Your task to perform on an android device: Open Google Chrome and click the shortcut for Amazon.com Image 0: 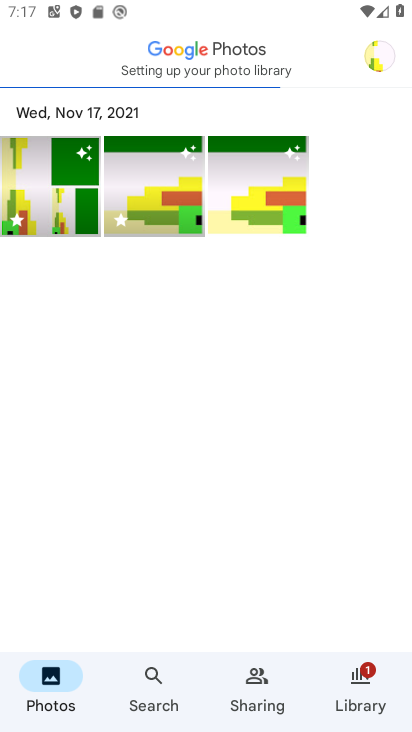
Step 0: press home button
Your task to perform on an android device: Open Google Chrome and click the shortcut for Amazon.com Image 1: 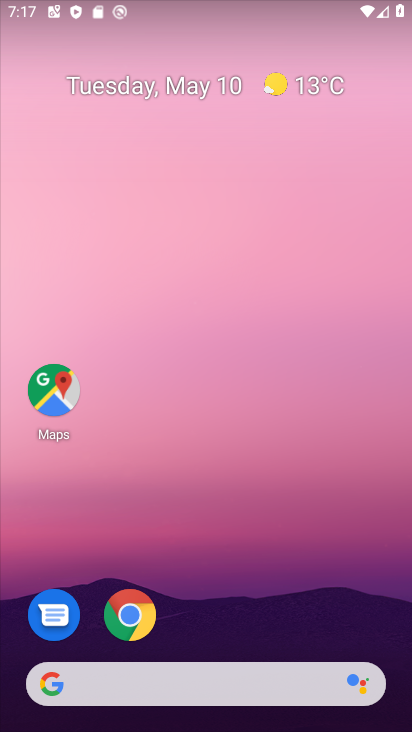
Step 1: drag from (290, 528) to (285, 45)
Your task to perform on an android device: Open Google Chrome and click the shortcut for Amazon.com Image 2: 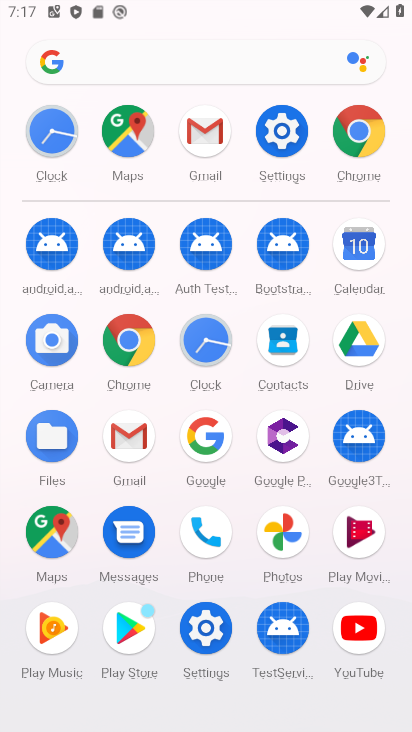
Step 2: click (347, 114)
Your task to perform on an android device: Open Google Chrome and click the shortcut for Amazon.com Image 3: 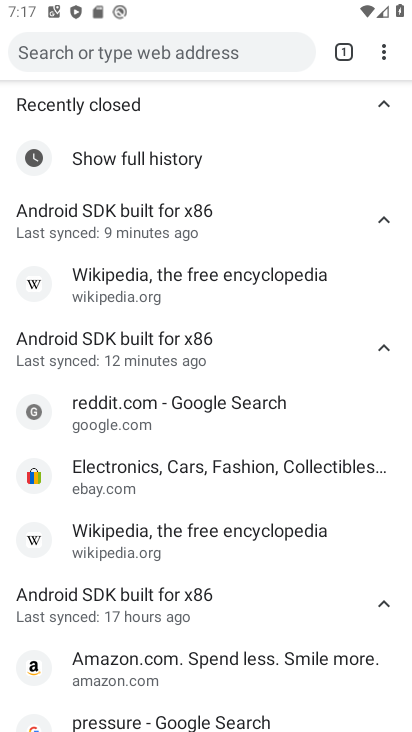
Step 3: click (109, 45)
Your task to perform on an android device: Open Google Chrome and click the shortcut for Amazon.com Image 4: 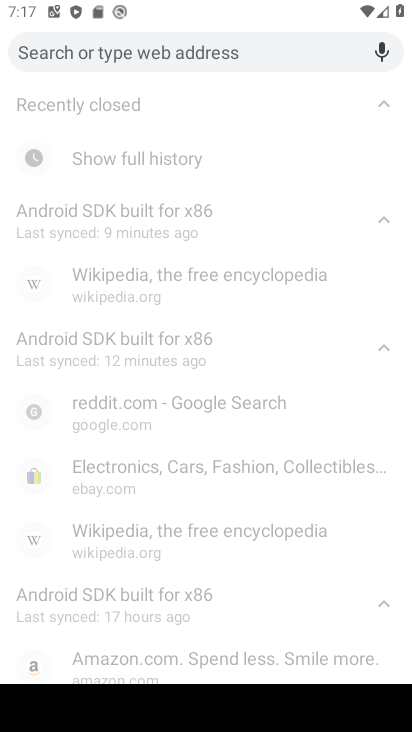
Step 4: type "amazon"
Your task to perform on an android device: Open Google Chrome and click the shortcut for Amazon.com Image 5: 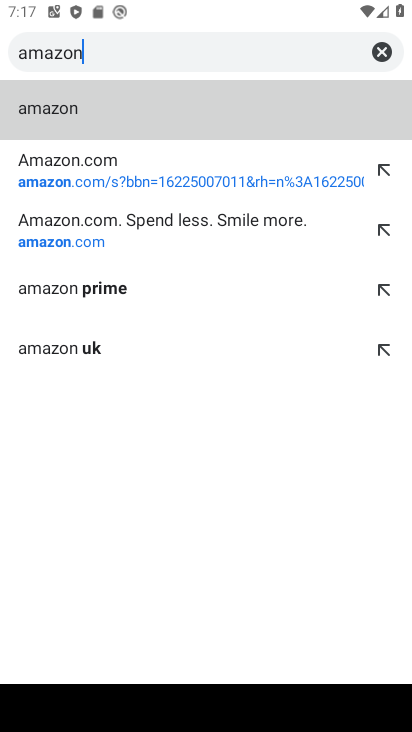
Step 5: click (82, 177)
Your task to perform on an android device: Open Google Chrome and click the shortcut for Amazon.com Image 6: 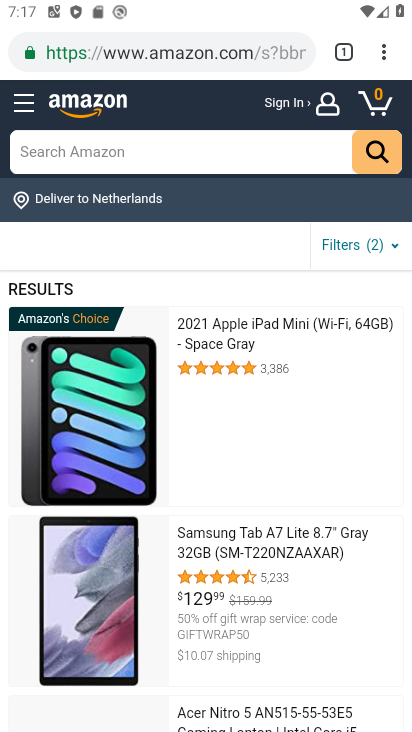
Step 6: drag from (396, 53) to (192, 548)
Your task to perform on an android device: Open Google Chrome and click the shortcut for Amazon.com Image 7: 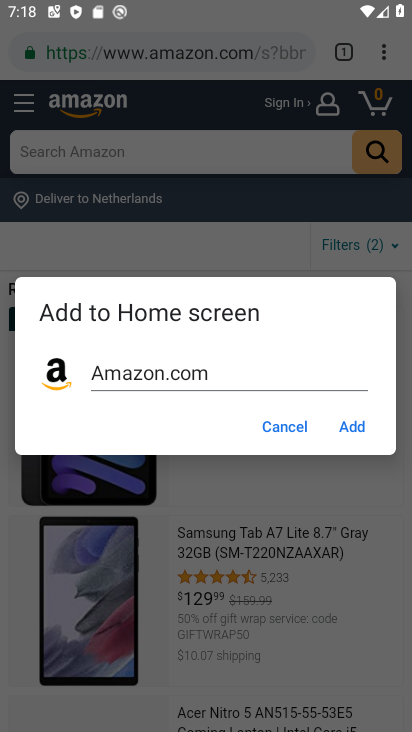
Step 7: click (346, 431)
Your task to perform on an android device: Open Google Chrome and click the shortcut for Amazon.com Image 8: 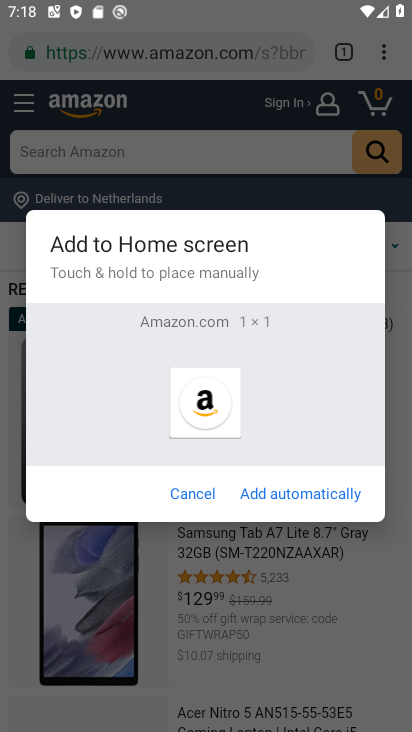
Step 8: click (304, 494)
Your task to perform on an android device: Open Google Chrome and click the shortcut for Amazon.com Image 9: 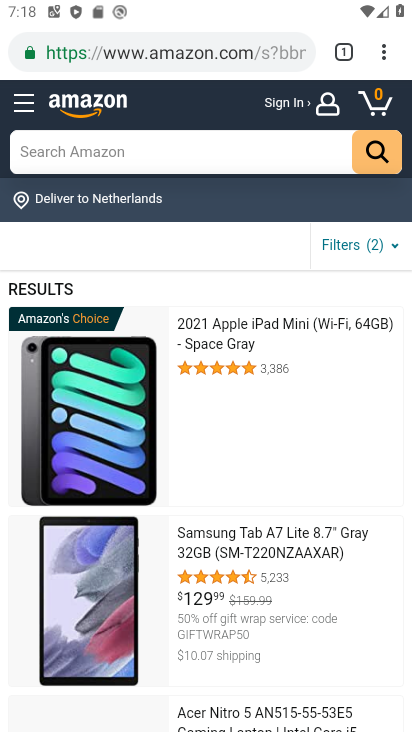
Step 9: task complete